Your task to perform on an android device: Open accessibility settings Image 0: 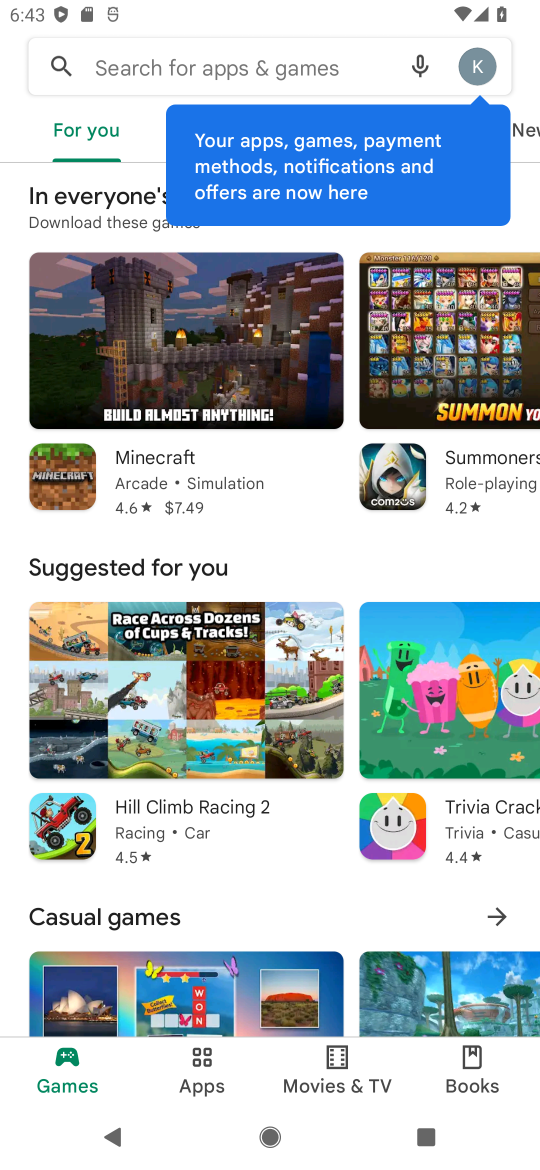
Step 0: press home button
Your task to perform on an android device: Open accessibility settings Image 1: 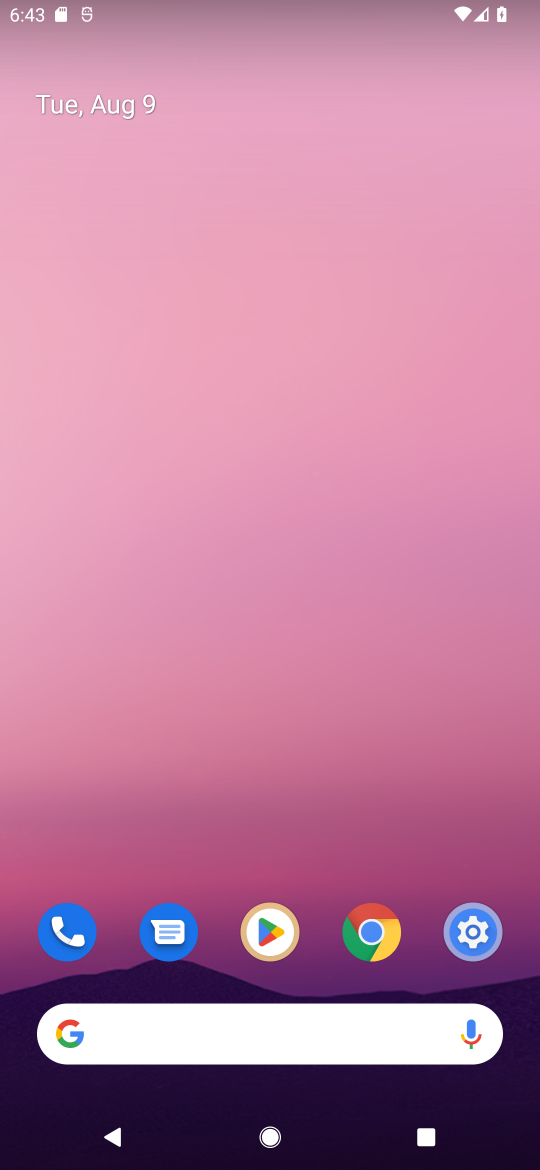
Step 1: drag from (264, 926) to (338, 214)
Your task to perform on an android device: Open accessibility settings Image 2: 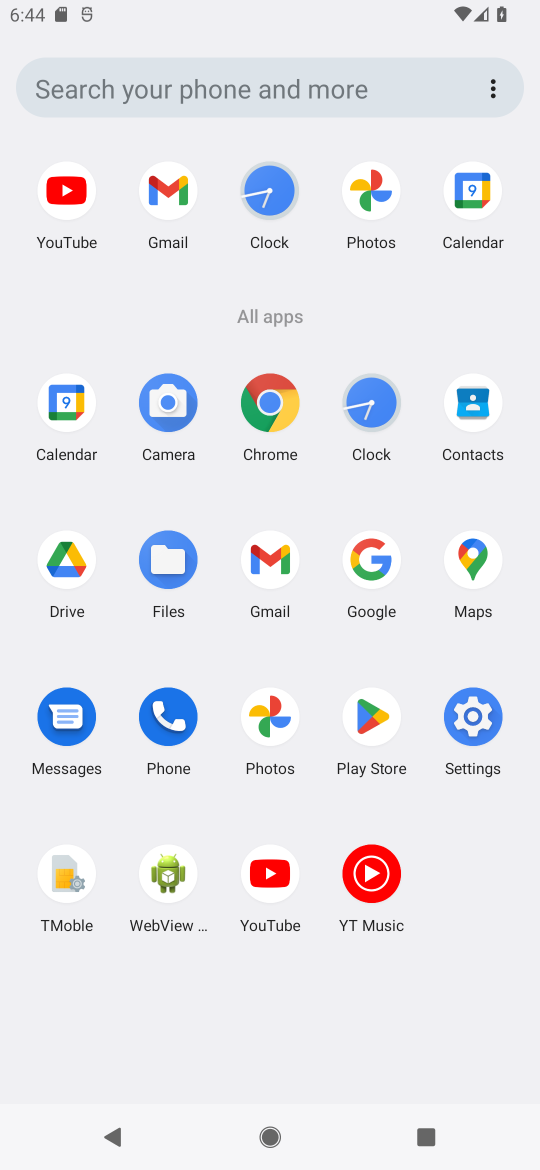
Step 2: click (497, 743)
Your task to perform on an android device: Open accessibility settings Image 3: 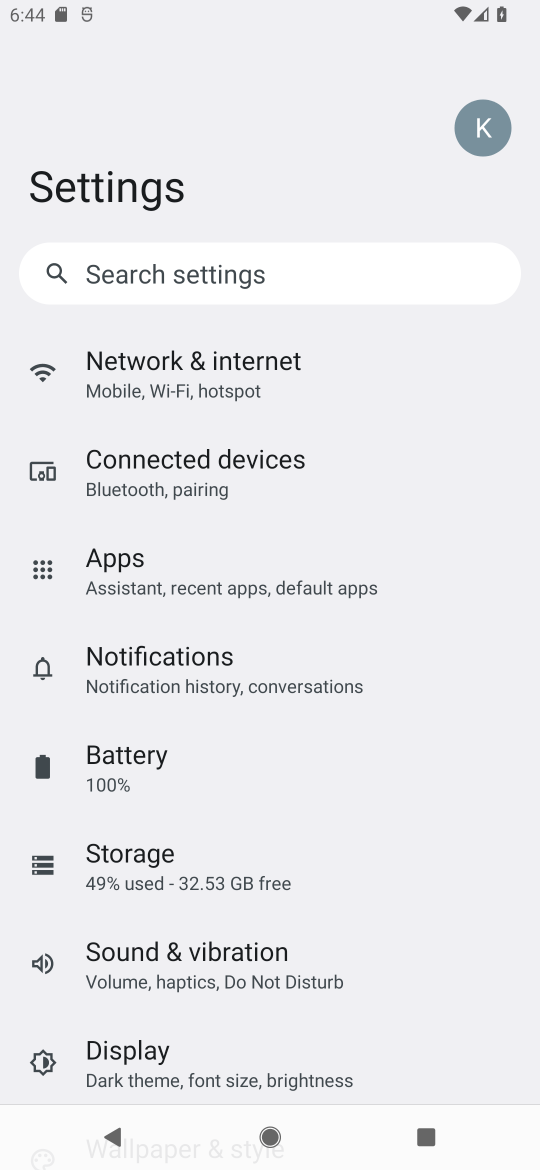
Step 3: drag from (253, 923) to (293, 297)
Your task to perform on an android device: Open accessibility settings Image 4: 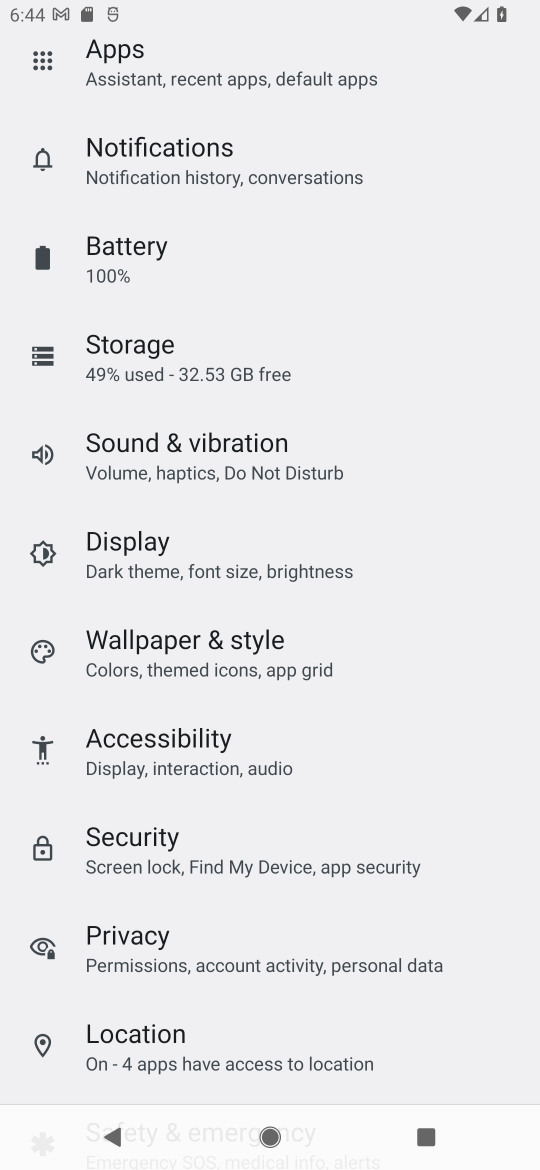
Step 4: drag from (206, 856) to (267, 435)
Your task to perform on an android device: Open accessibility settings Image 5: 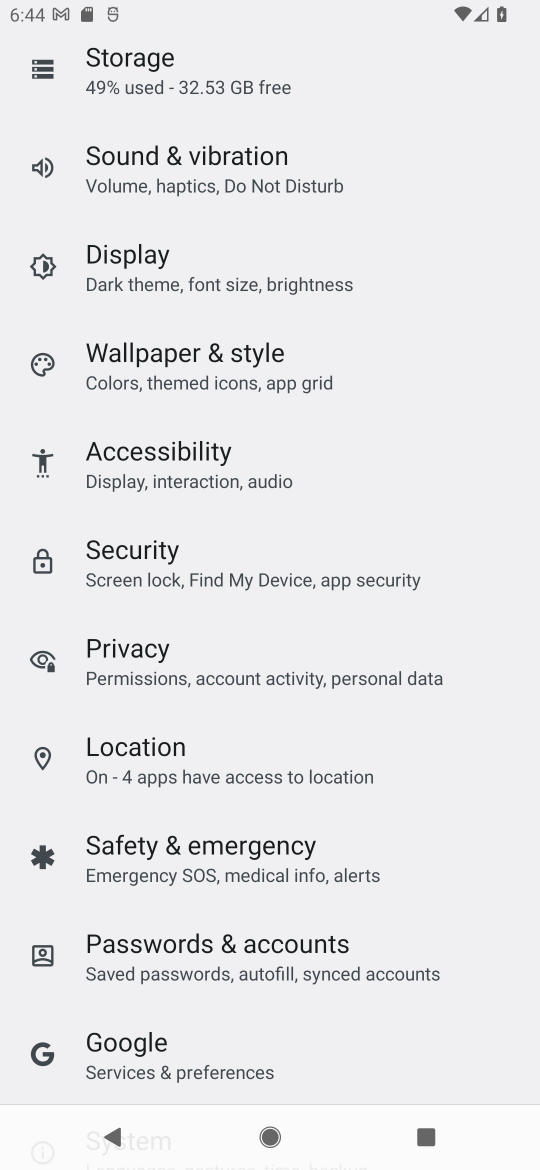
Step 5: click (208, 480)
Your task to perform on an android device: Open accessibility settings Image 6: 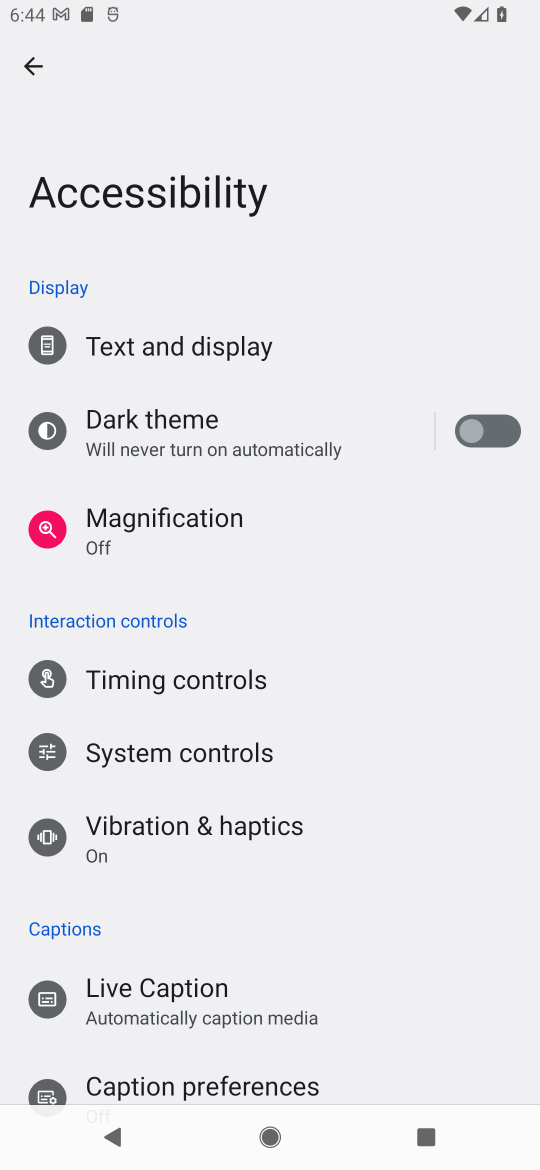
Step 6: task complete